Your task to perform on an android device: Open maps Image 0: 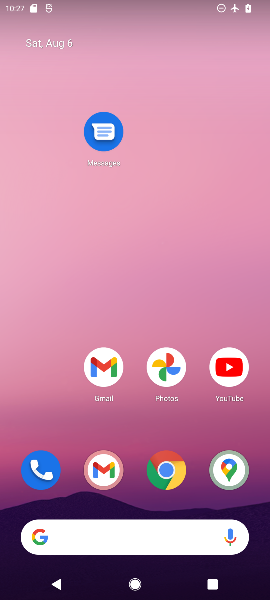
Step 0: drag from (188, 105) to (199, 4)
Your task to perform on an android device: Open maps Image 1: 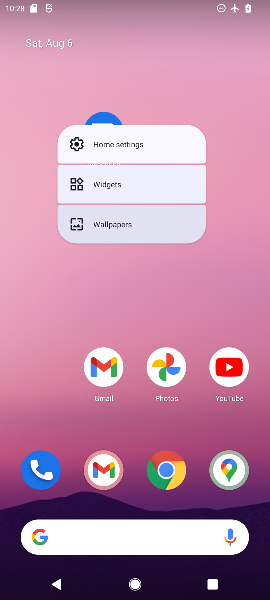
Step 1: drag from (161, 557) to (192, 109)
Your task to perform on an android device: Open maps Image 2: 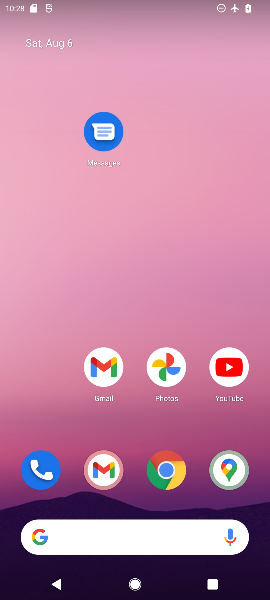
Step 2: click (164, 320)
Your task to perform on an android device: Open maps Image 3: 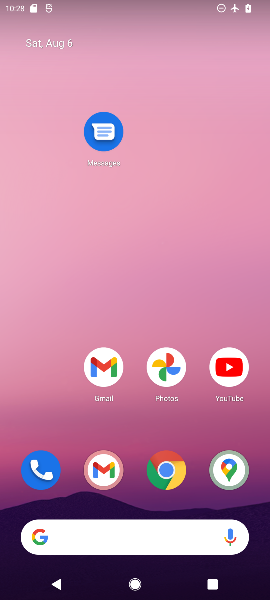
Step 3: drag from (158, 546) to (163, 65)
Your task to perform on an android device: Open maps Image 4: 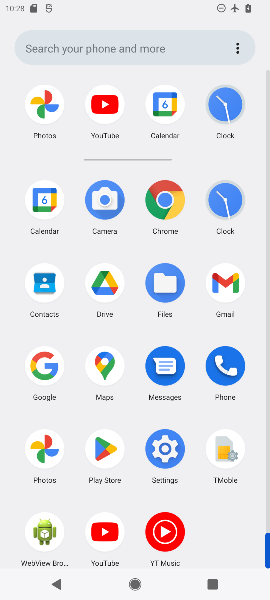
Step 4: click (98, 380)
Your task to perform on an android device: Open maps Image 5: 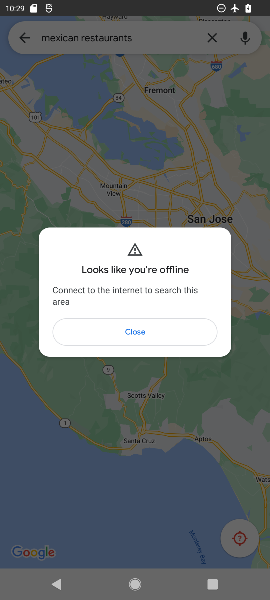
Step 5: task complete